Your task to perform on an android device: turn on improve location accuracy Image 0: 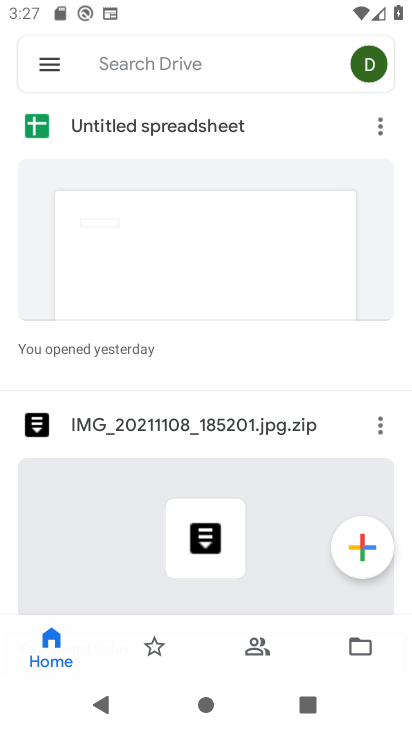
Step 0: press home button
Your task to perform on an android device: turn on improve location accuracy Image 1: 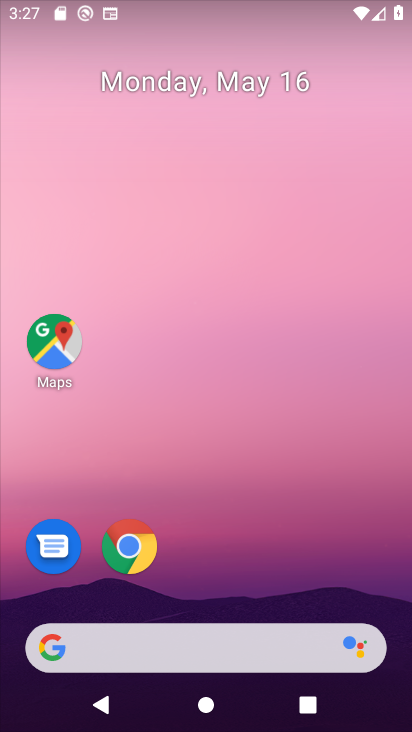
Step 1: drag from (360, 553) to (382, 99)
Your task to perform on an android device: turn on improve location accuracy Image 2: 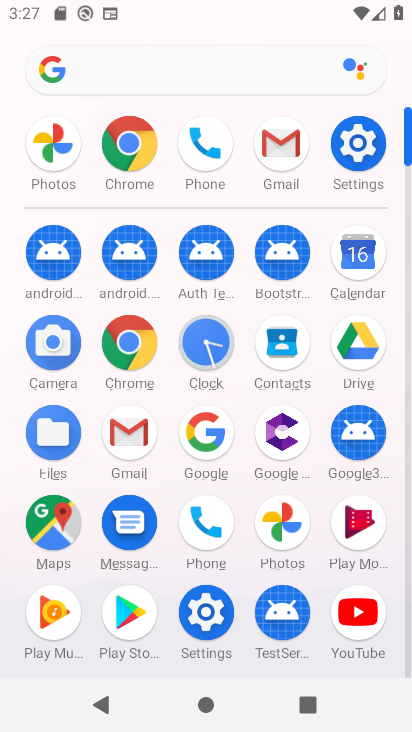
Step 2: click (359, 156)
Your task to perform on an android device: turn on improve location accuracy Image 3: 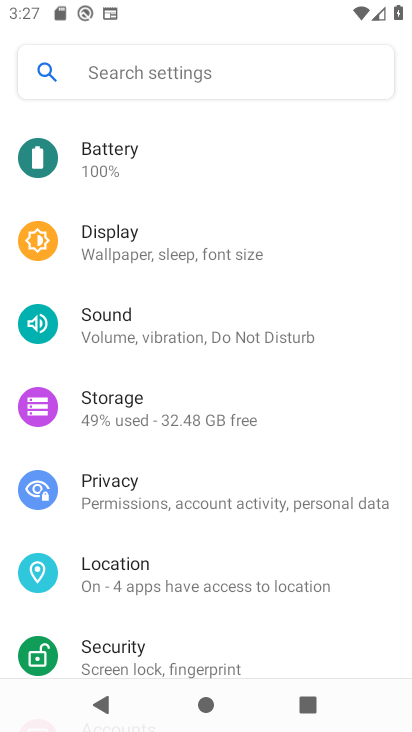
Step 3: drag from (368, 277) to (368, 548)
Your task to perform on an android device: turn on improve location accuracy Image 4: 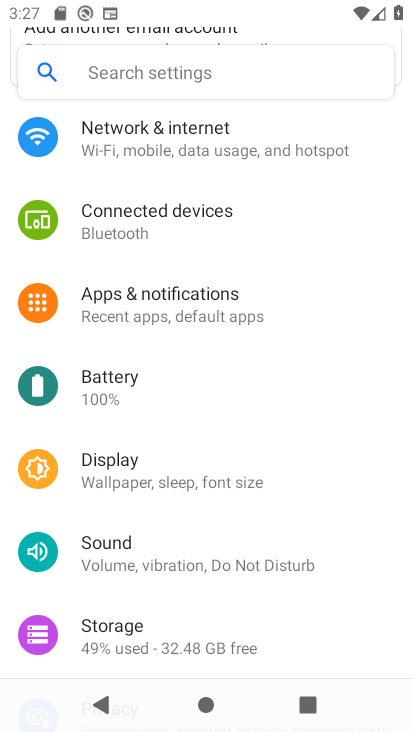
Step 4: drag from (355, 235) to (357, 467)
Your task to perform on an android device: turn on improve location accuracy Image 5: 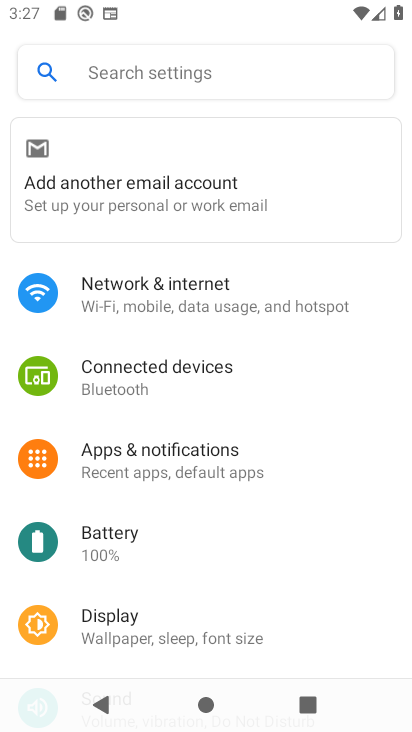
Step 5: drag from (338, 564) to (363, 384)
Your task to perform on an android device: turn on improve location accuracy Image 6: 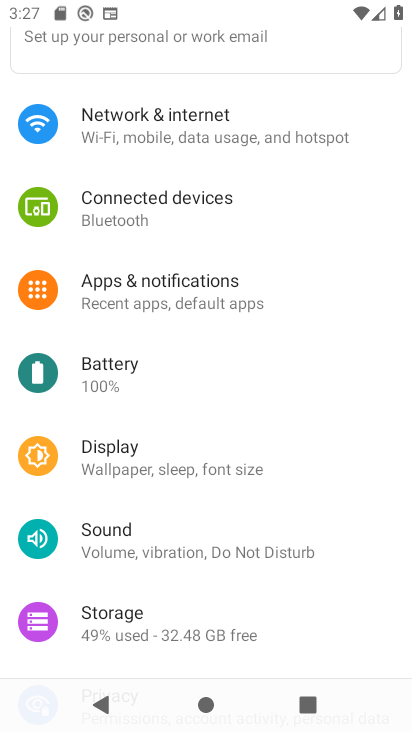
Step 6: drag from (346, 632) to (355, 508)
Your task to perform on an android device: turn on improve location accuracy Image 7: 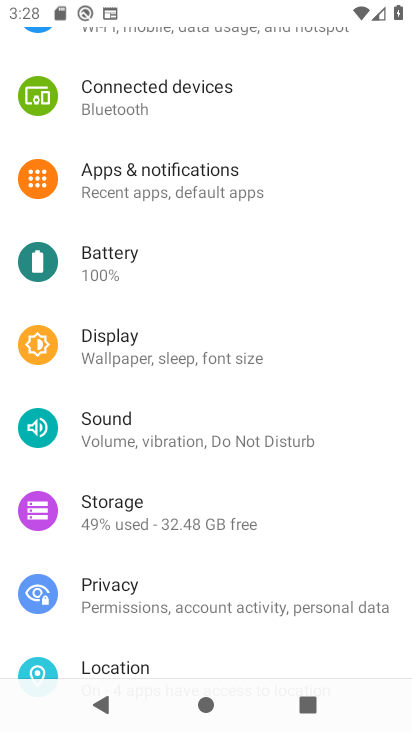
Step 7: drag from (298, 557) to (311, 378)
Your task to perform on an android device: turn on improve location accuracy Image 8: 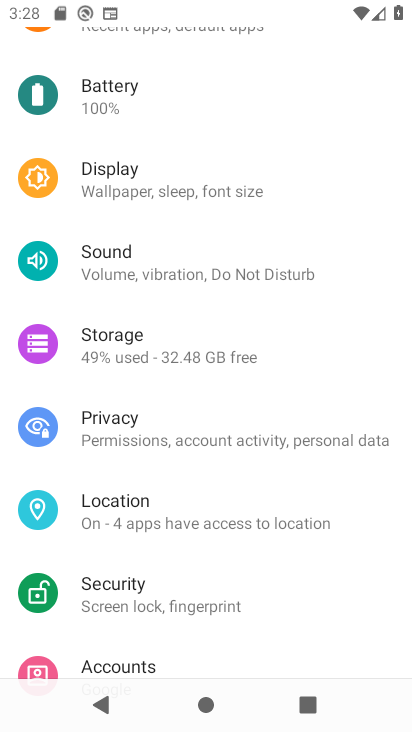
Step 8: drag from (311, 612) to (348, 390)
Your task to perform on an android device: turn on improve location accuracy Image 9: 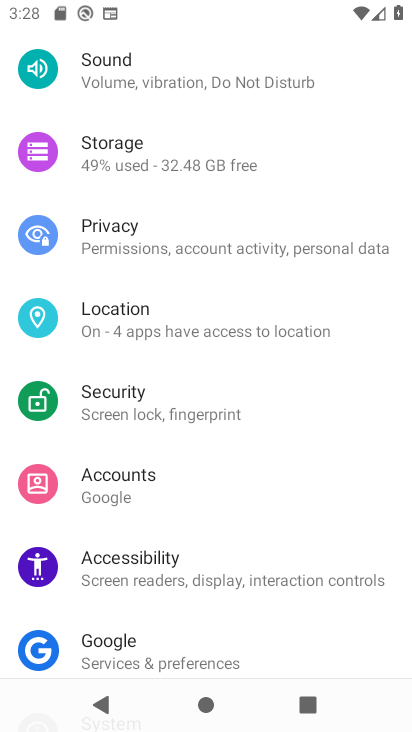
Step 9: click (259, 326)
Your task to perform on an android device: turn on improve location accuracy Image 10: 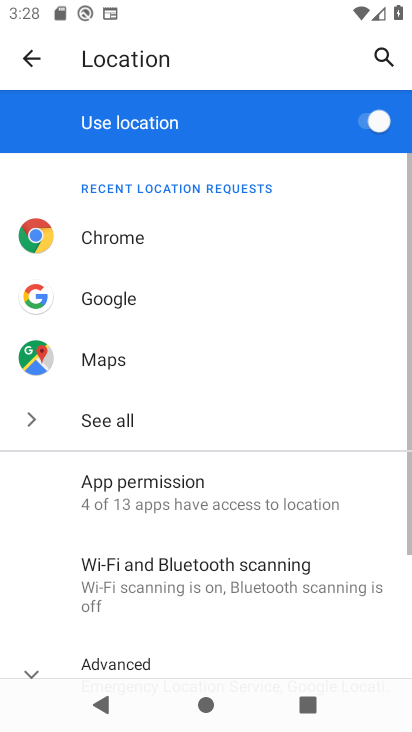
Step 10: drag from (292, 640) to (325, 471)
Your task to perform on an android device: turn on improve location accuracy Image 11: 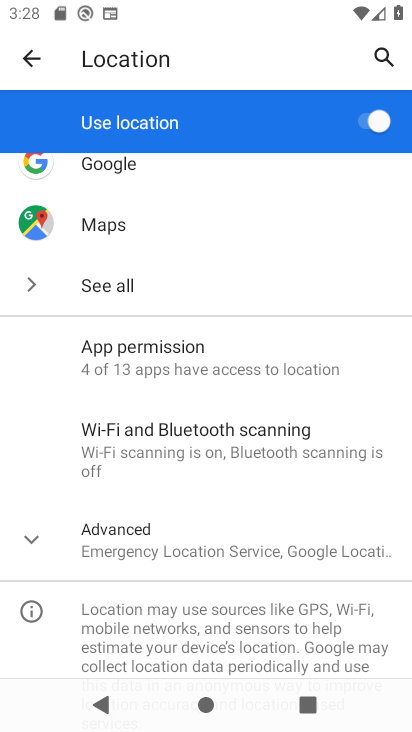
Step 11: click (286, 545)
Your task to perform on an android device: turn on improve location accuracy Image 12: 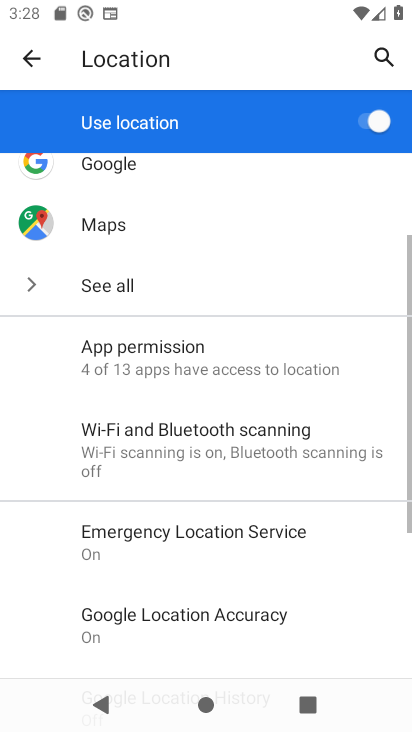
Step 12: drag from (296, 644) to (326, 503)
Your task to perform on an android device: turn on improve location accuracy Image 13: 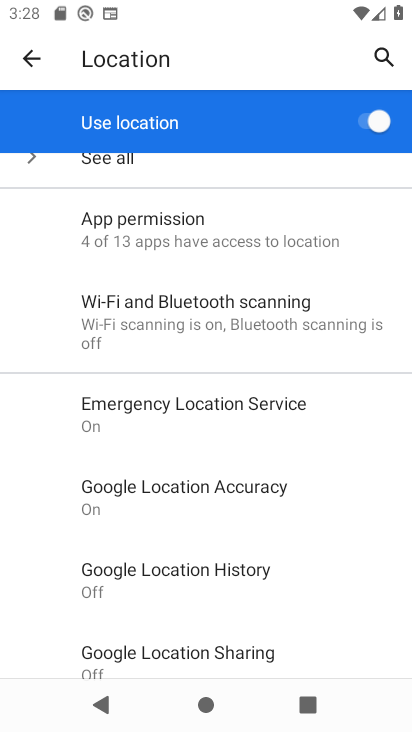
Step 13: drag from (337, 638) to (346, 531)
Your task to perform on an android device: turn on improve location accuracy Image 14: 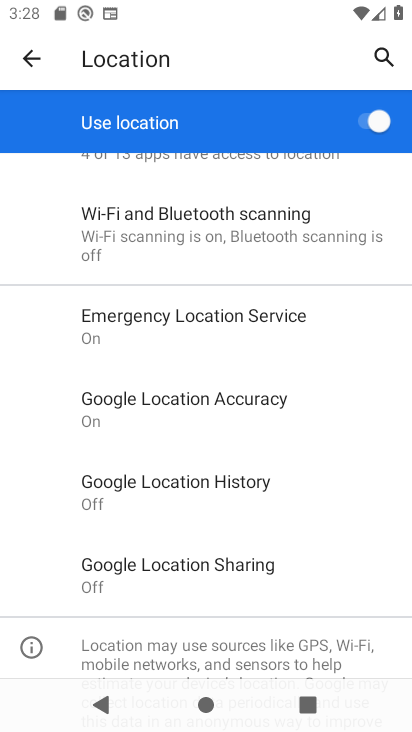
Step 14: drag from (345, 573) to (340, 455)
Your task to perform on an android device: turn on improve location accuracy Image 15: 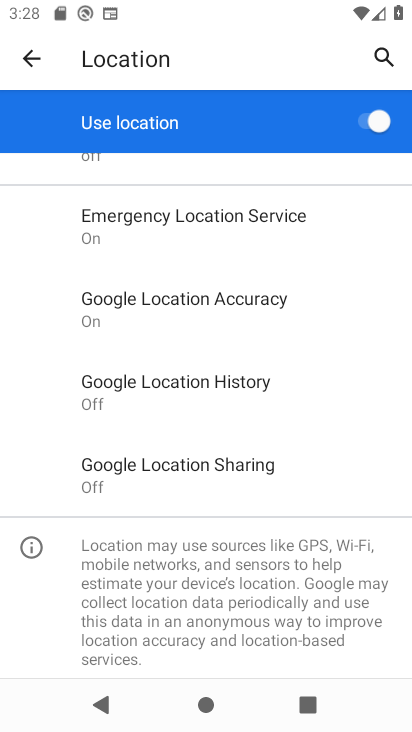
Step 15: drag from (321, 628) to (329, 496)
Your task to perform on an android device: turn on improve location accuracy Image 16: 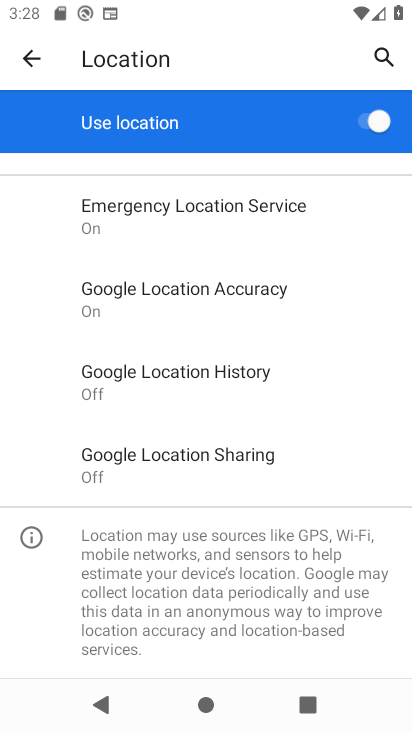
Step 16: click (170, 303)
Your task to perform on an android device: turn on improve location accuracy Image 17: 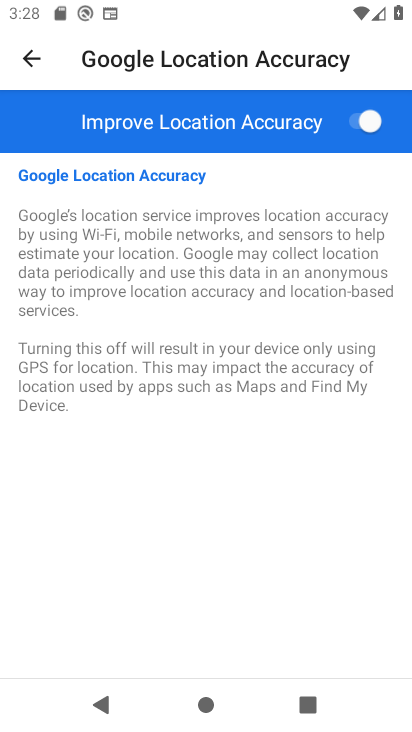
Step 17: task complete